Your task to perform on an android device: Go to calendar. Show me events next week Image 0: 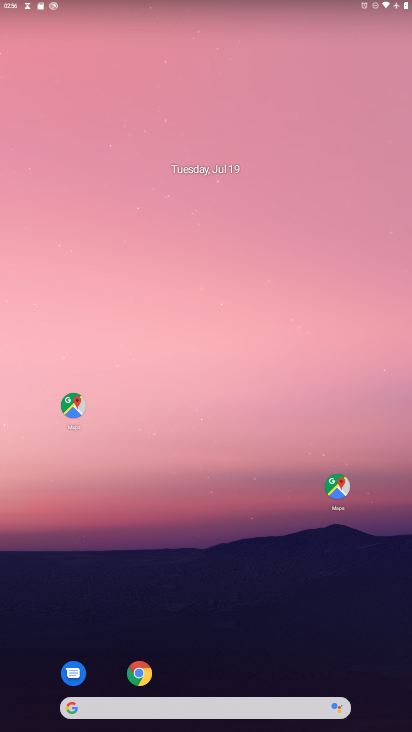
Step 0: drag from (311, 619) to (298, 96)
Your task to perform on an android device: Go to calendar. Show me events next week Image 1: 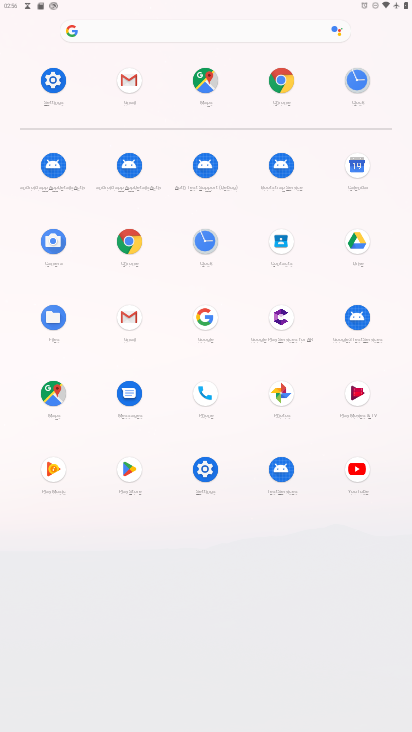
Step 1: click (357, 173)
Your task to perform on an android device: Go to calendar. Show me events next week Image 2: 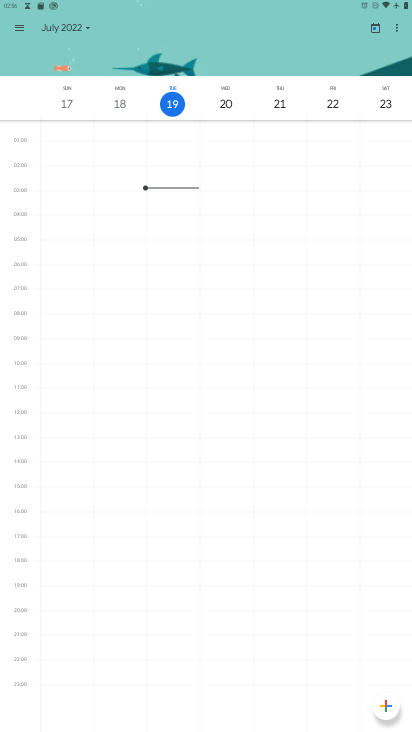
Step 2: task complete